Your task to perform on an android device: move an email to a new category in the gmail app Image 0: 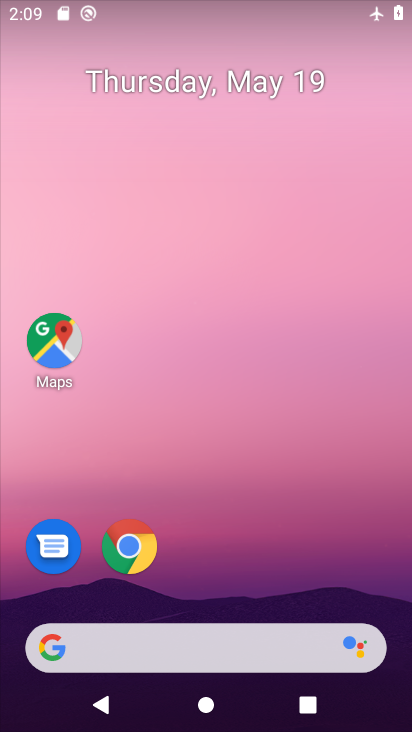
Step 0: drag from (214, 584) to (220, 13)
Your task to perform on an android device: move an email to a new category in the gmail app Image 1: 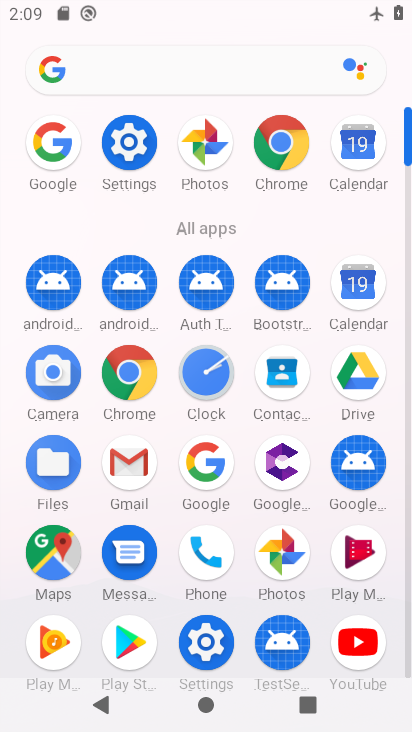
Step 1: click (134, 453)
Your task to perform on an android device: move an email to a new category in the gmail app Image 2: 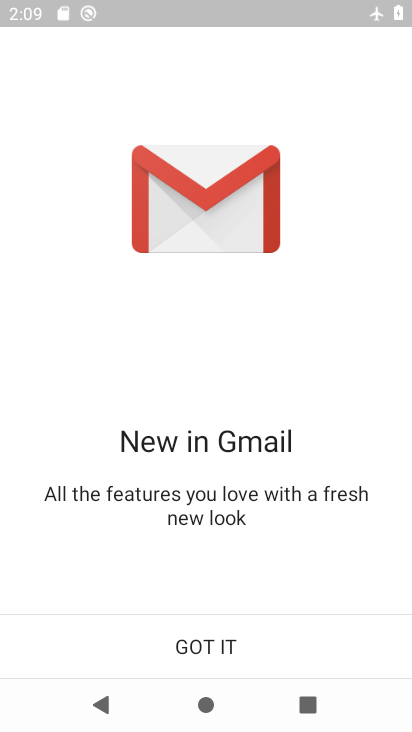
Step 2: click (209, 640)
Your task to perform on an android device: move an email to a new category in the gmail app Image 3: 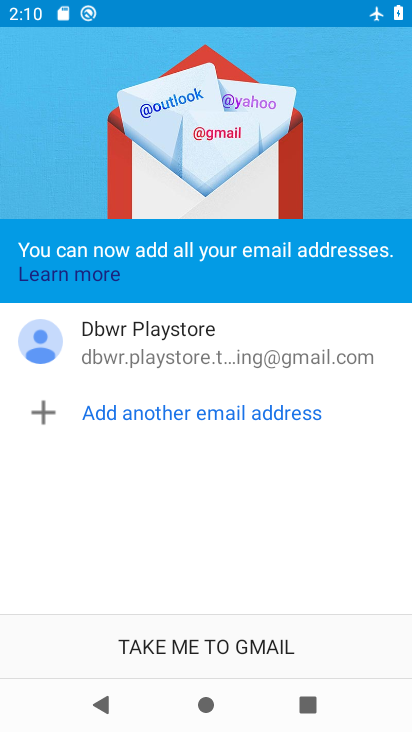
Step 3: click (213, 639)
Your task to perform on an android device: move an email to a new category in the gmail app Image 4: 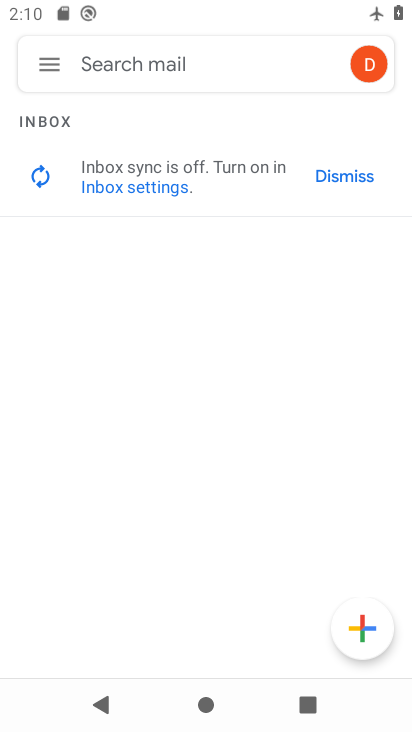
Step 4: click (53, 53)
Your task to perform on an android device: move an email to a new category in the gmail app Image 5: 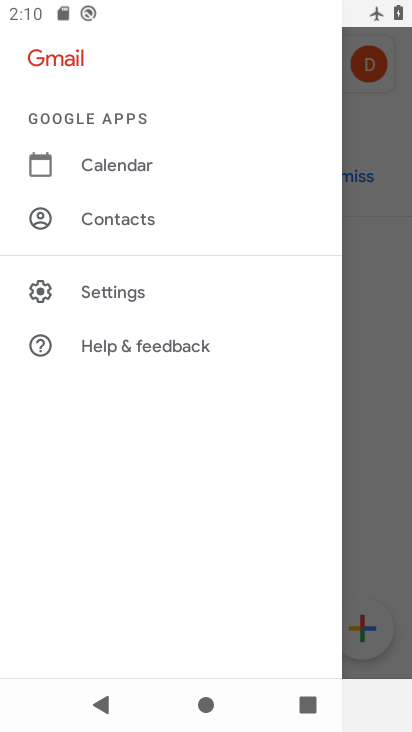
Step 5: task complete